Your task to perform on an android device: turn off sleep mode Image 0: 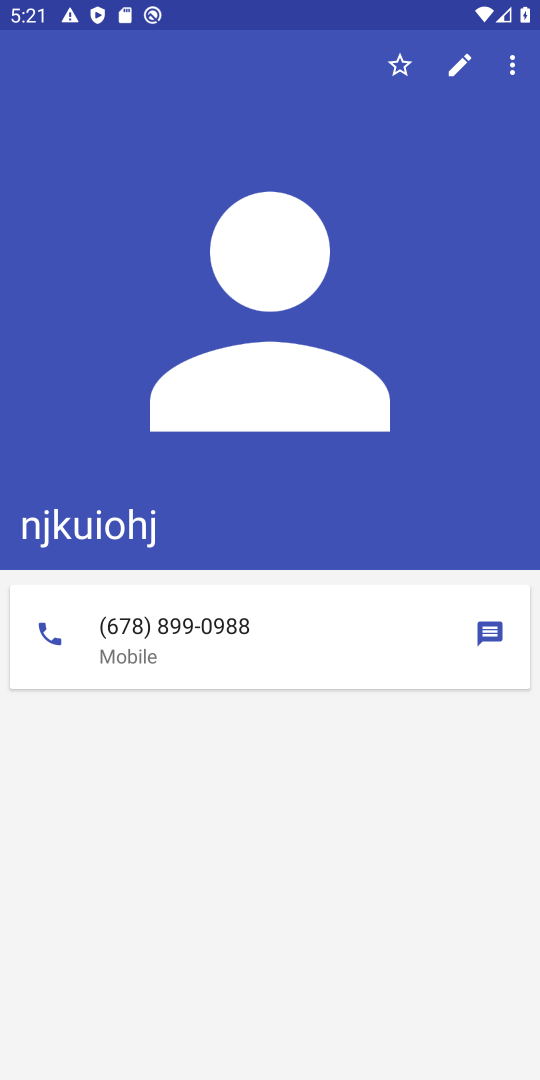
Step 0: press home button
Your task to perform on an android device: turn off sleep mode Image 1: 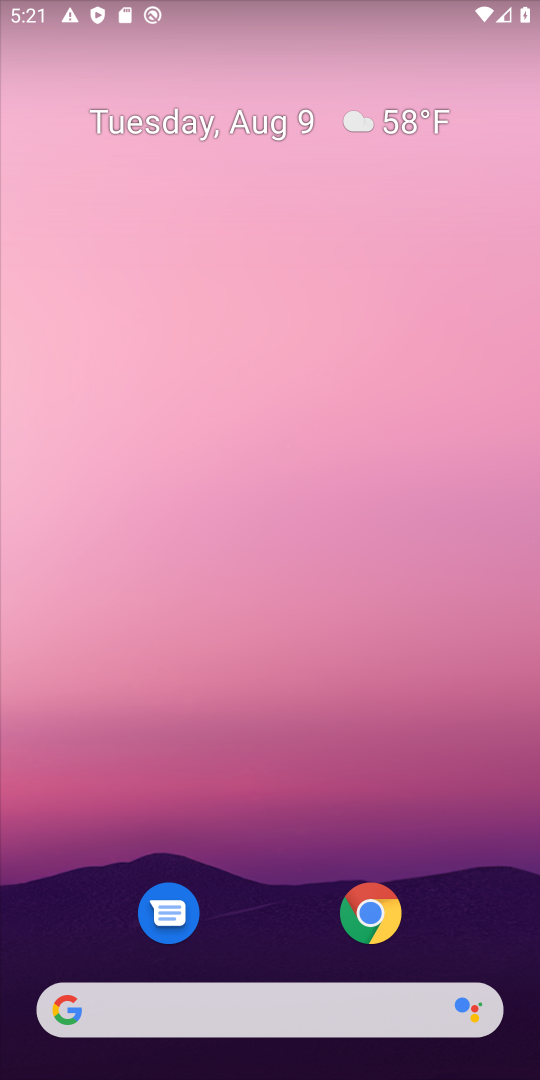
Step 1: drag from (274, 896) to (274, 7)
Your task to perform on an android device: turn off sleep mode Image 2: 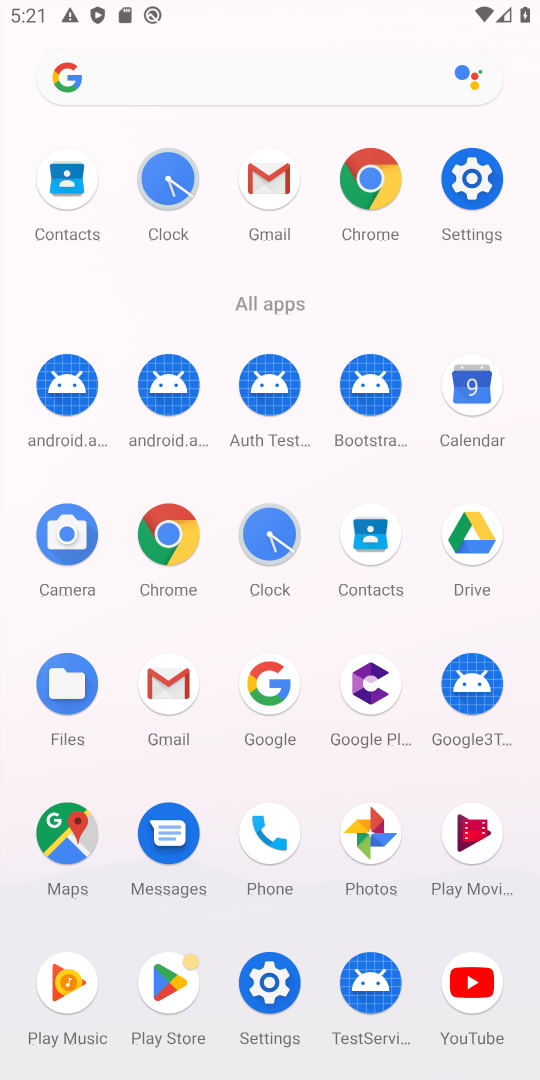
Step 2: click (480, 179)
Your task to perform on an android device: turn off sleep mode Image 3: 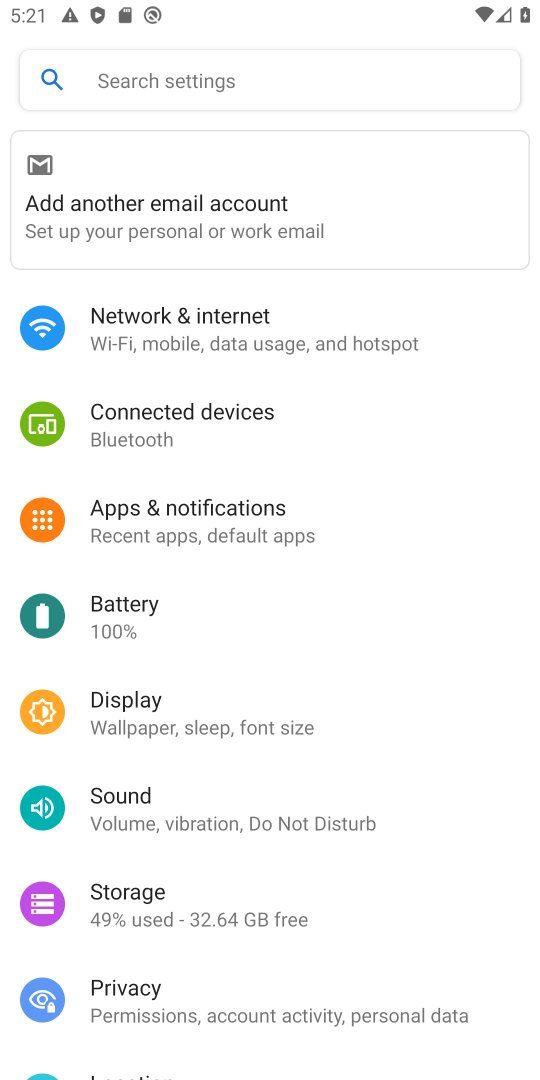
Step 3: click (182, 705)
Your task to perform on an android device: turn off sleep mode Image 4: 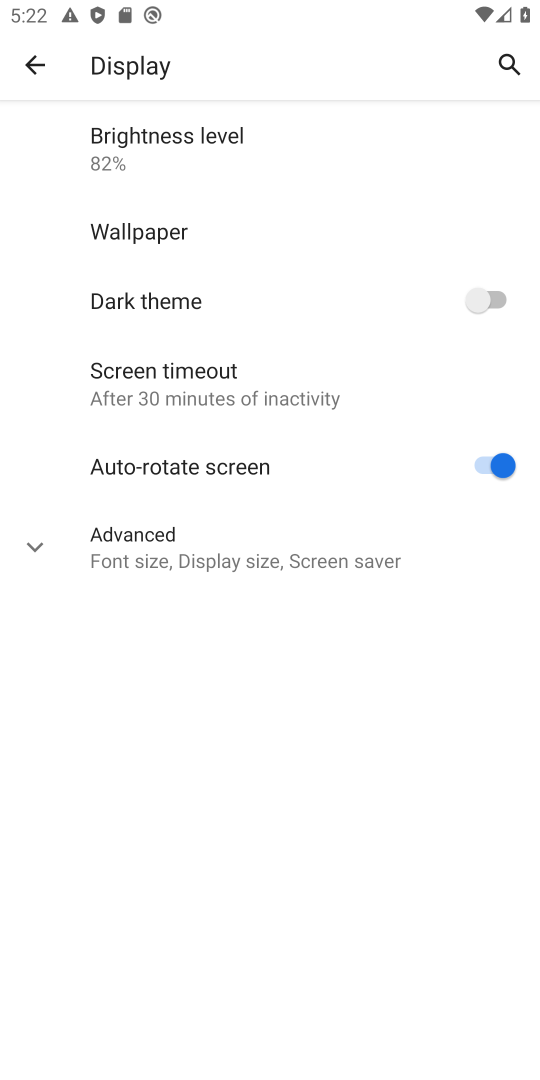
Step 4: click (309, 561)
Your task to perform on an android device: turn off sleep mode Image 5: 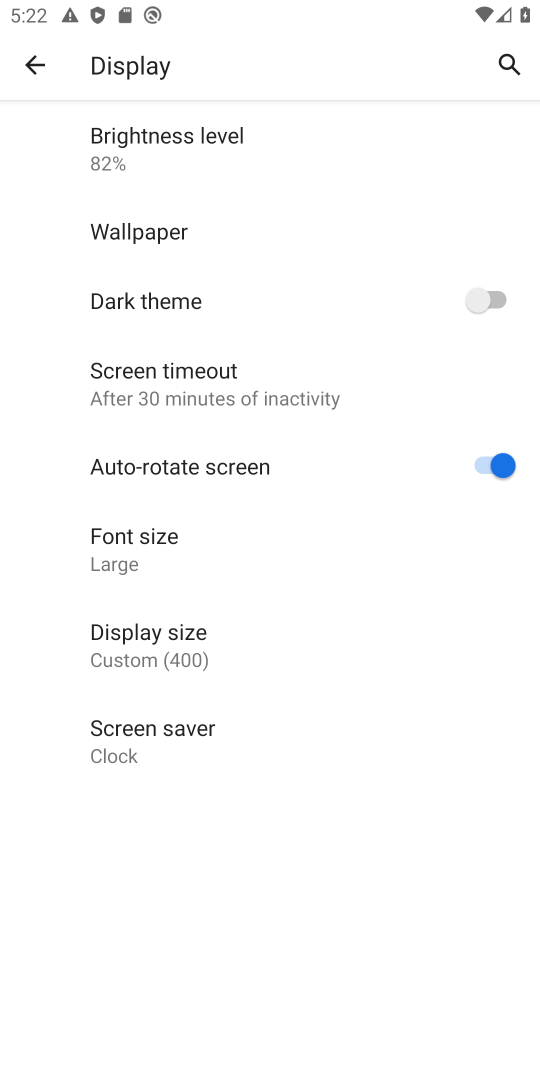
Step 5: task complete